Your task to perform on an android device: Search for panasonic triple a on costco.com, select the first entry, and add it to the cart. Image 0: 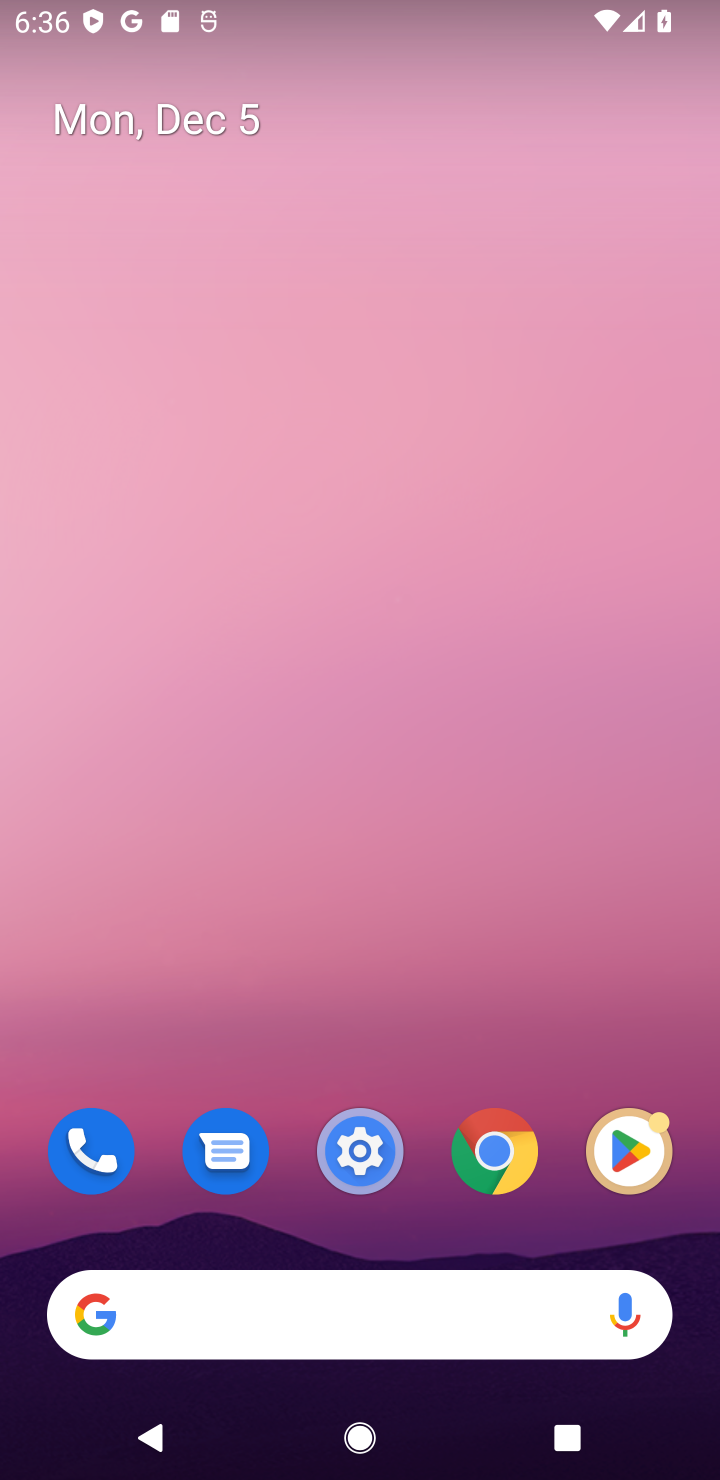
Step 0: click (315, 1349)
Your task to perform on an android device: Search for panasonic triple a on costco.com, select the first entry, and add it to the cart. Image 1: 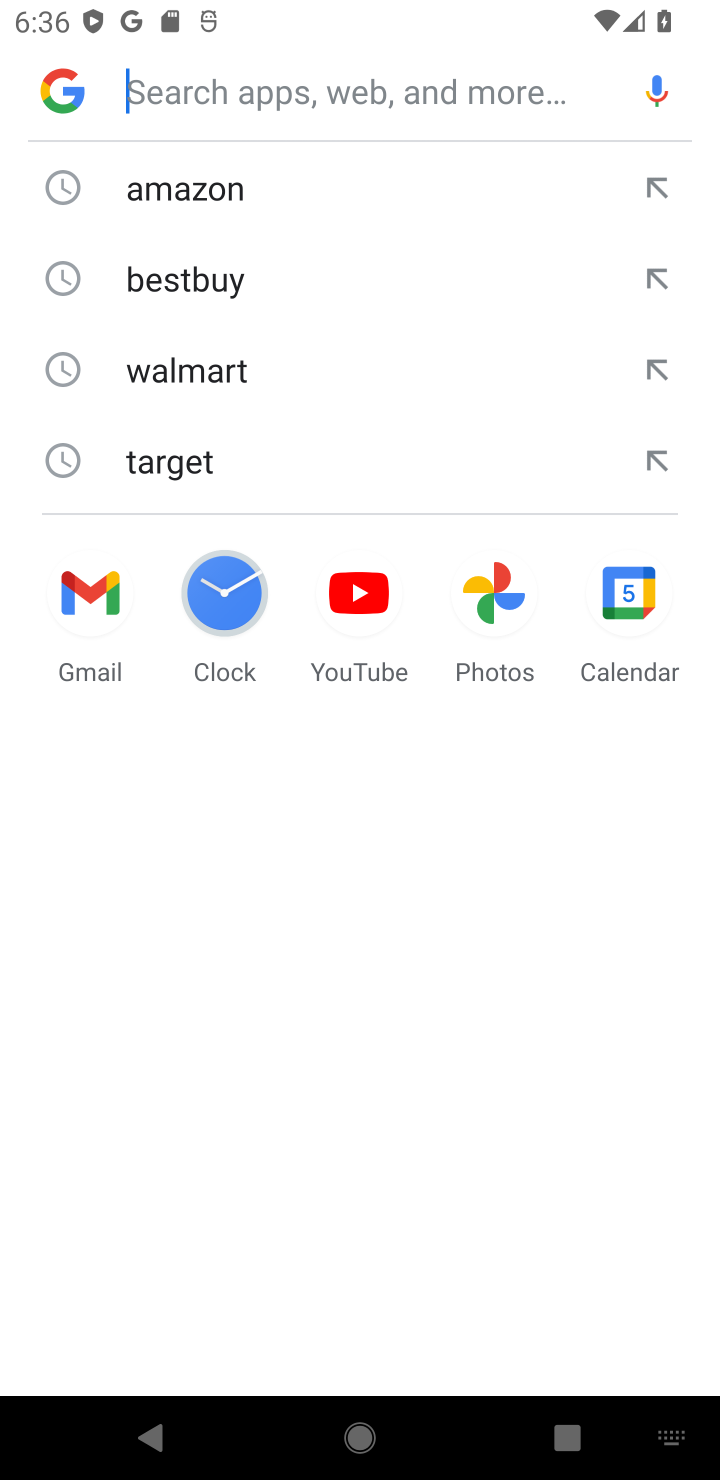
Step 1: type "costco"
Your task to perform on an android device: Search for panasonic triple a on costco.com, select the first entry, and add it to the cart. Image 2: 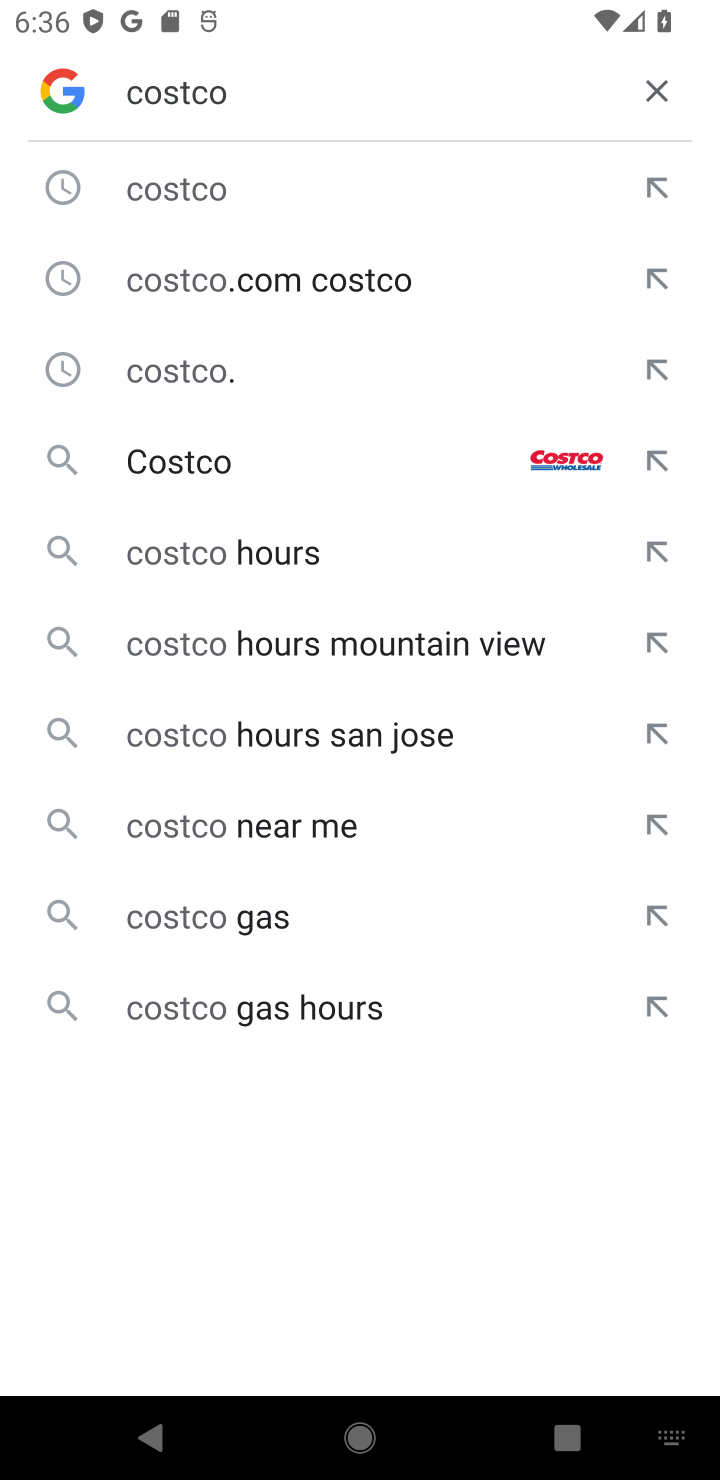
Step 2: click (481, 480)
Your task to perform on an android device: Search for panasonic triple a on costco.com, select the first entry, and add it to the cart. Image 3: 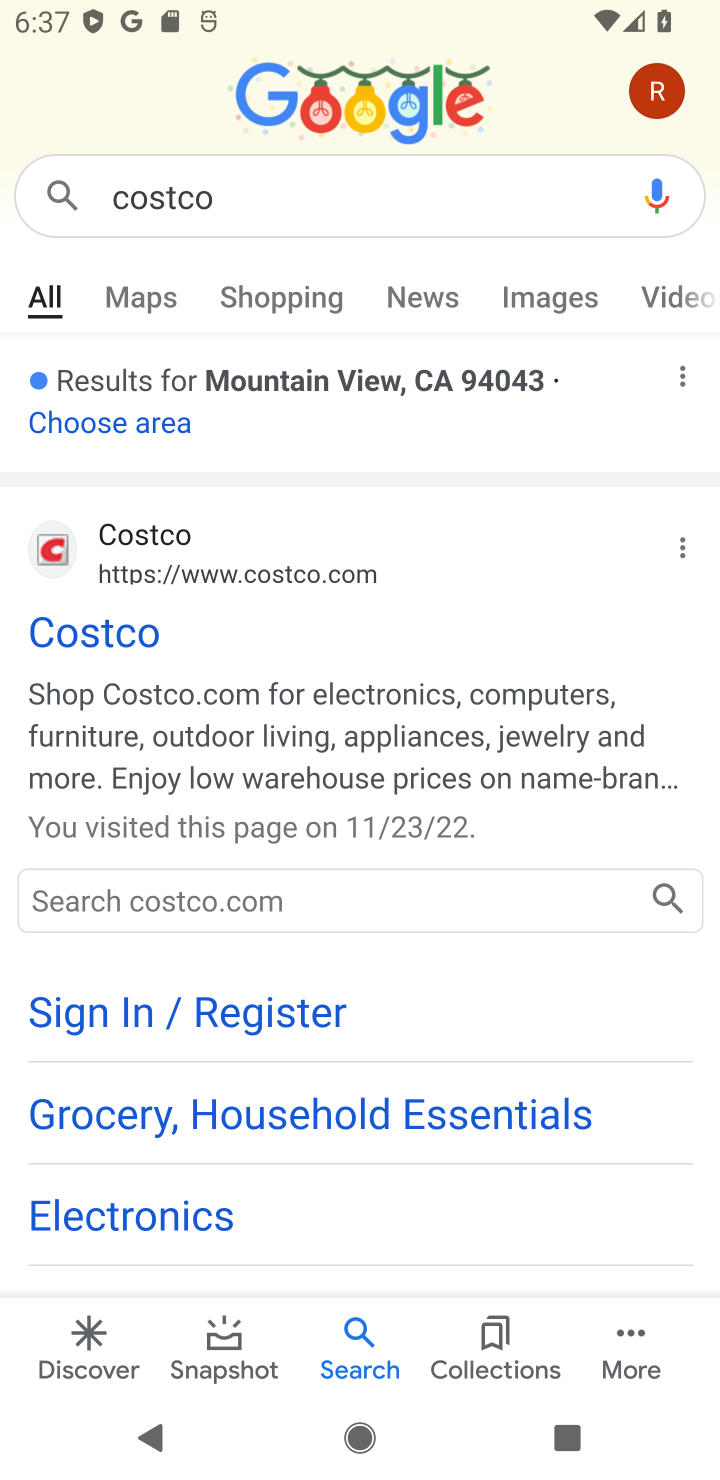
Step 3: click (74, 572)
Your task to perform on an android device: Search for panasonic triple a on costco.com, select the first entry, and add it to the cart. Image 4: 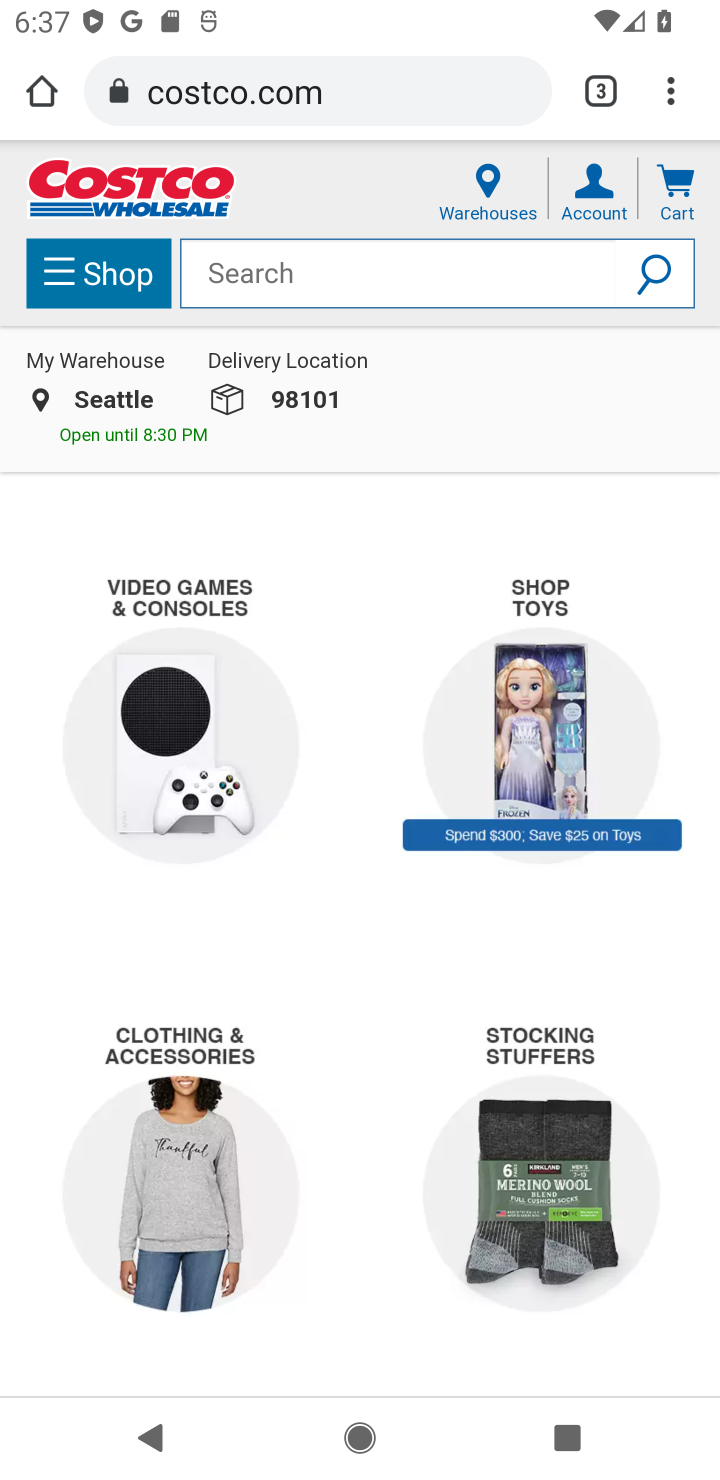
Step 4: click (311, 275)
Your task to perform on an android device: Search for panasonic triple a on costco.com, select the first entry, and add it to the cart. Image 5: 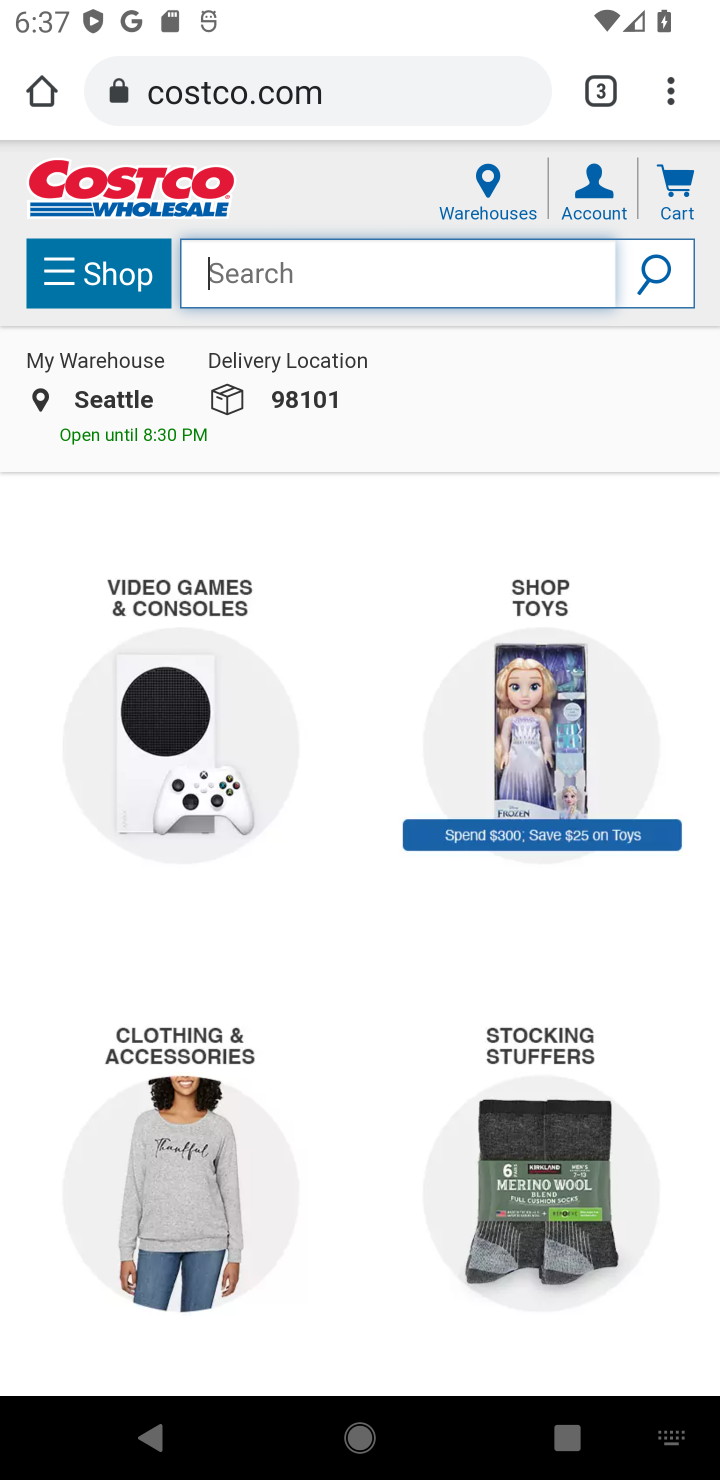
Step 5: type "panasonic triple a"
Your task to perform on an android device: Search for panasonic triple a on costco.com, select the first entry, and add it to the cart. Image 6: 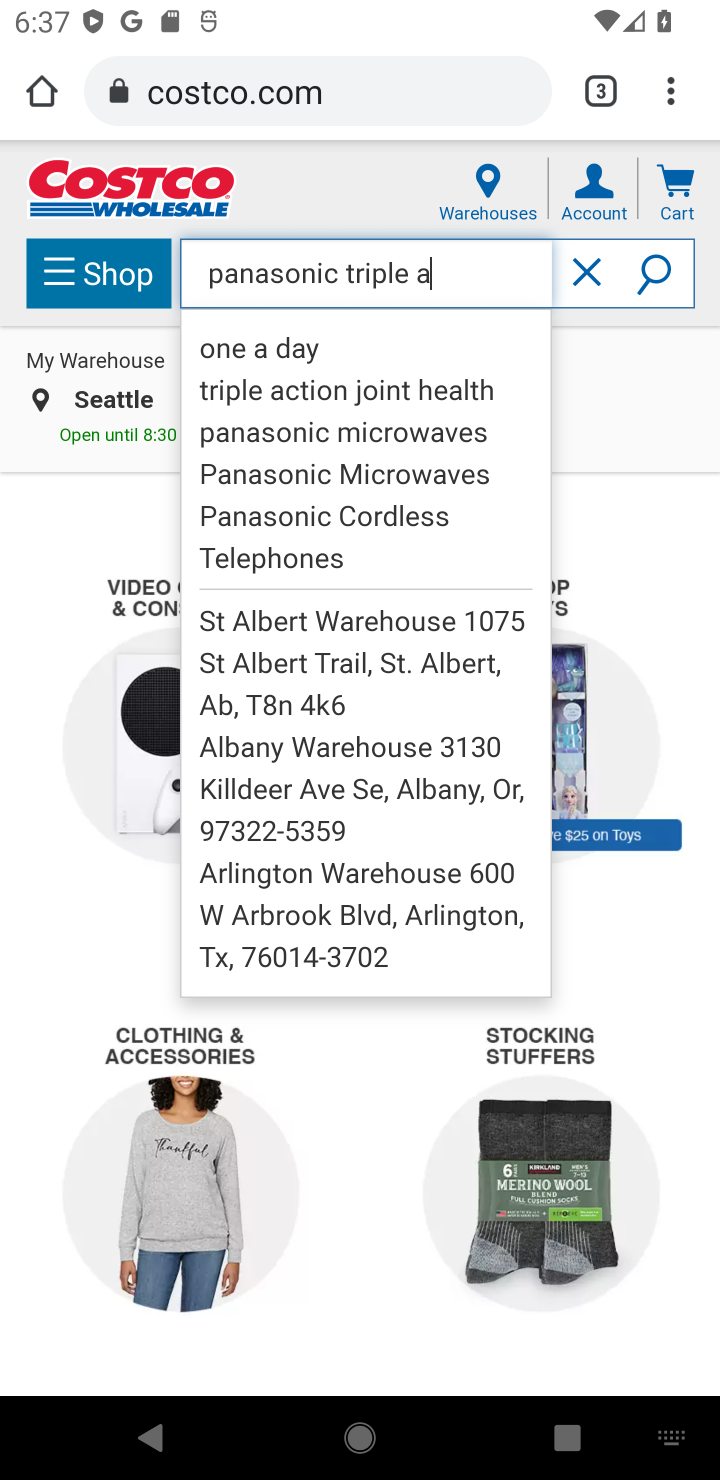
Step 6: click (656, 279)
Your task to perform on an android device: Search for panasonic triple a on costco.com, select the first entry, and add it to the cart. Image 7: 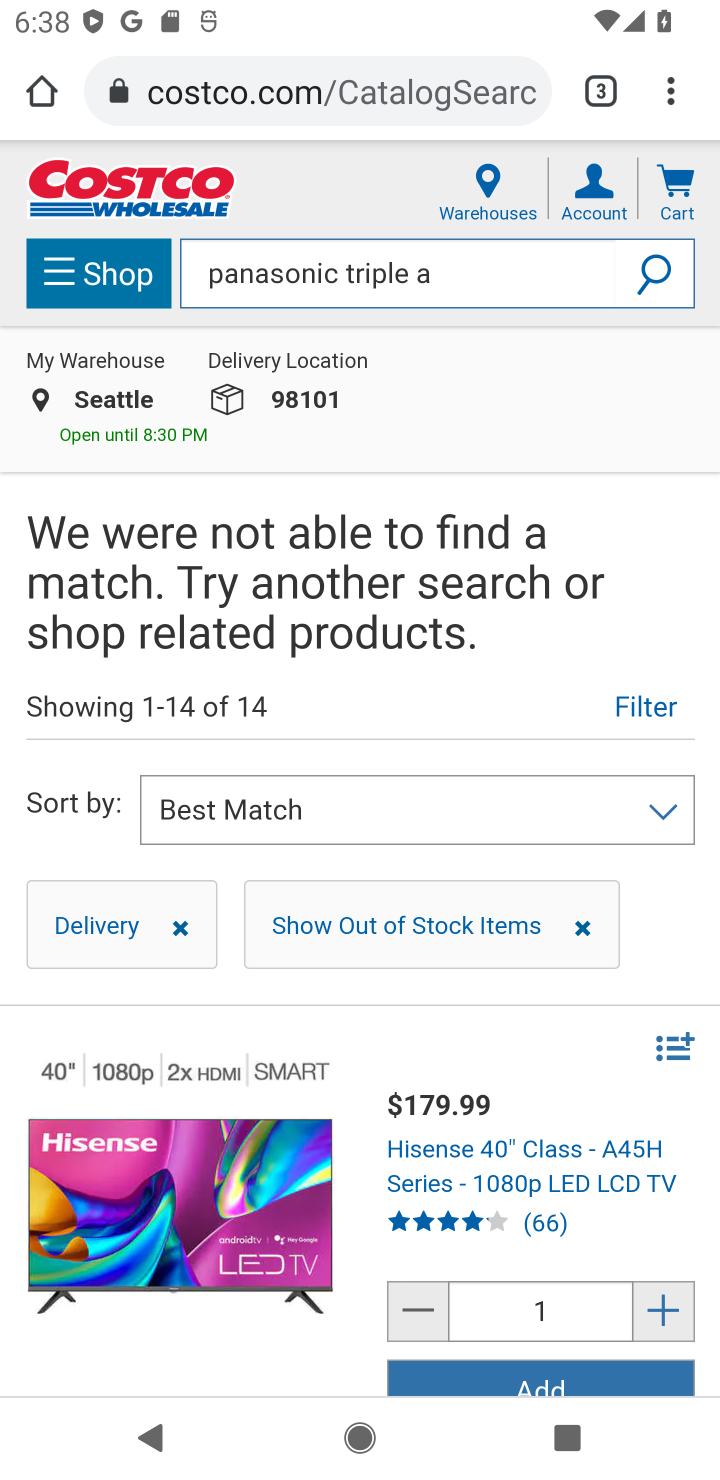
Step 7: task complete